Your task to perform on an android device: turn on the 24-hour format for clock Image 0: 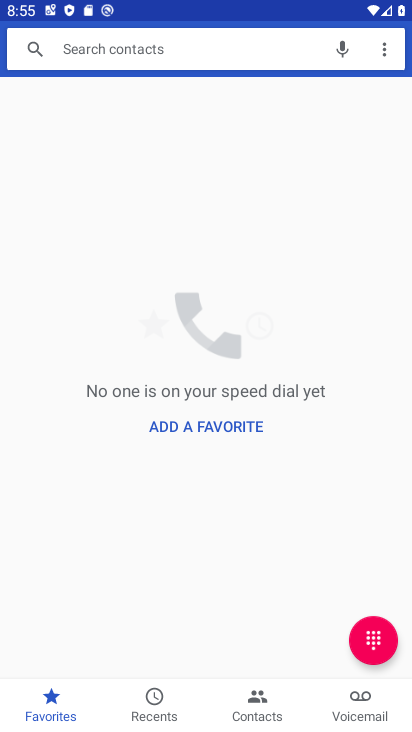
Step 0: press home button
Your task to perform on an android device: turn on the 24-hour format for clock Image 1: 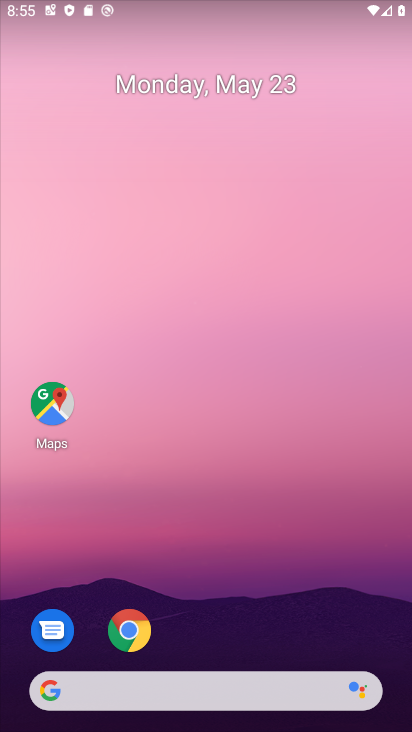
Step 1: drag from (196, 669) to (251, 159)
Your task to perform on an android device: turn on the 24-hour format for clock Image 2: 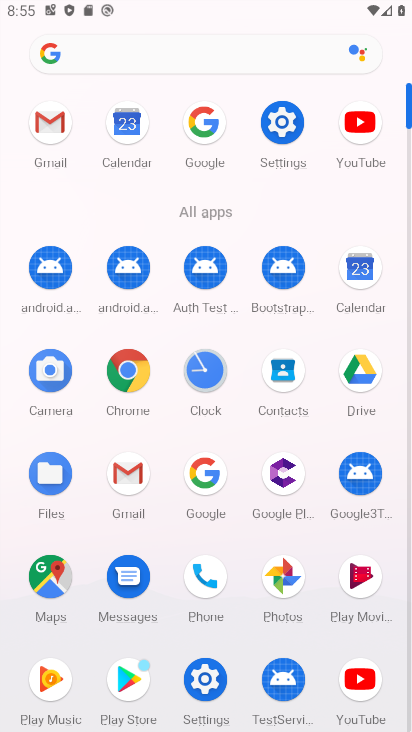
Step 2: click (210, 376)
Your task to perform on an android device: turn on the 24-hour format for clock Image 3: 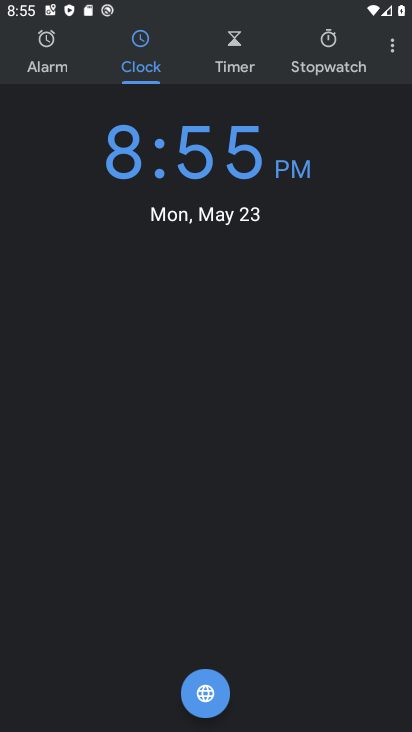
Step 3: click (392, 54)
Your task to perform on an android device: turn on the 24-hour format for clock Image 4: 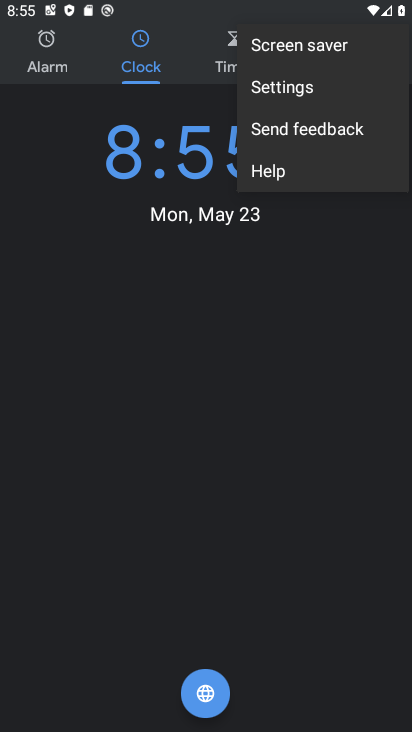
Step 4: click (301, 88)
Your task to perform on an android device: turn on the 24-hour format for clock Image 5: 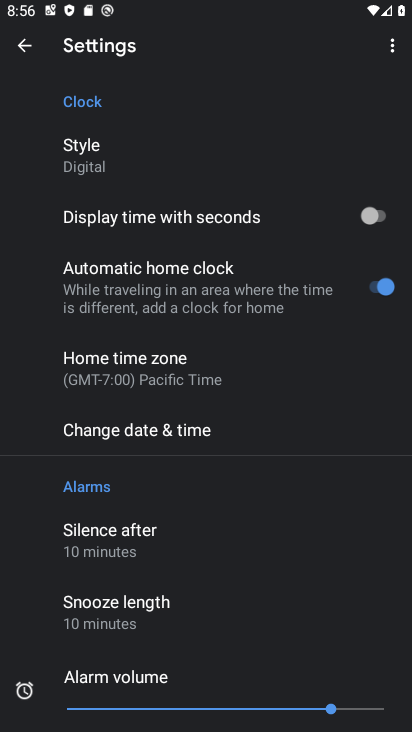
Step 5: drag from (142, 656) to (185, 202)
Your task to perform on an android device: turn on the 24-hour format for clock Image 6: 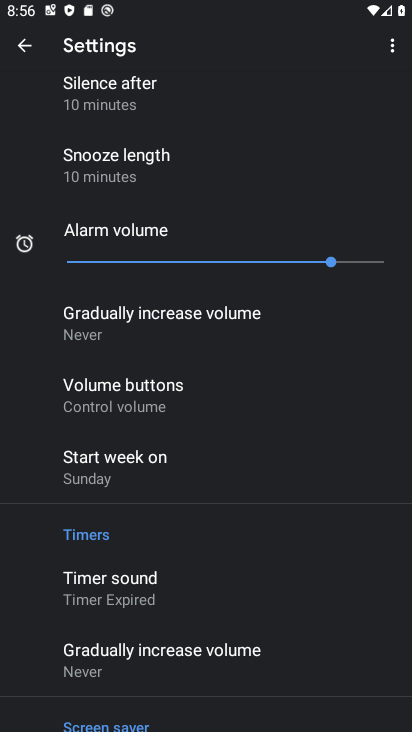
Step 6: drag from (161, 637) to (255, 72)
Your task to perform on an android device: turn on the 24-hour format for clock Image 7: 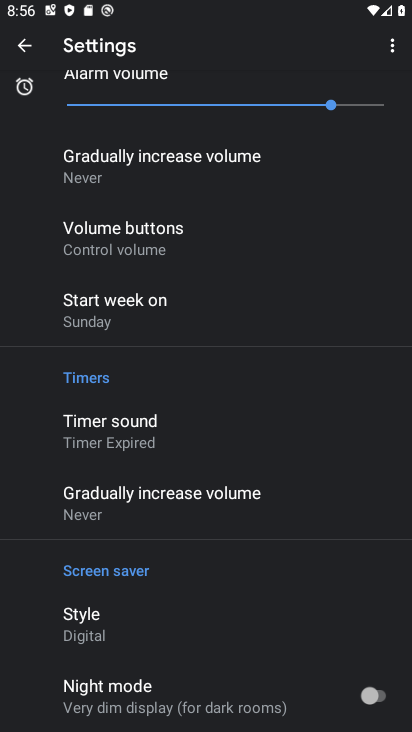
Step 7: drag from (176, 652) to (191, 234)
Your task to perform on an android device: turn on the 24-hour format for clock Image 8: 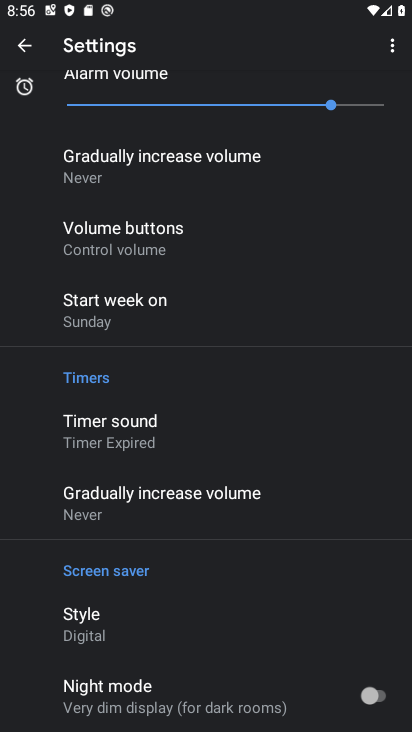
Step 8: drag from (180, 111) to (144, 496)
Your task to perform on an android device: turn on the 24-hour format for clock Image 9: 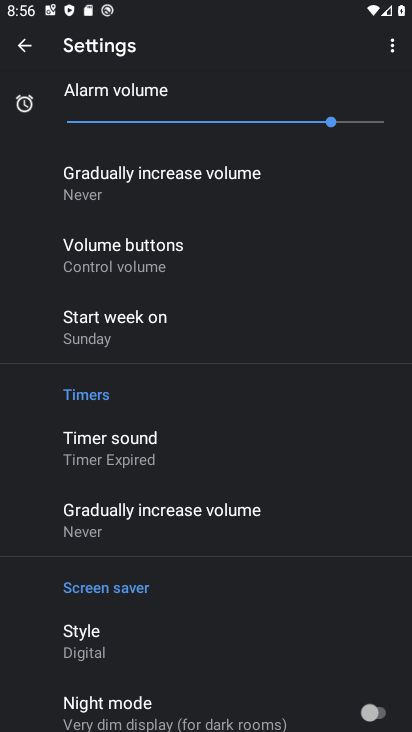
Step 9: drag from (190, 157) to (166, 600)
Your task to perform on an android device: turn on the 24-hour format for clock Image 10: 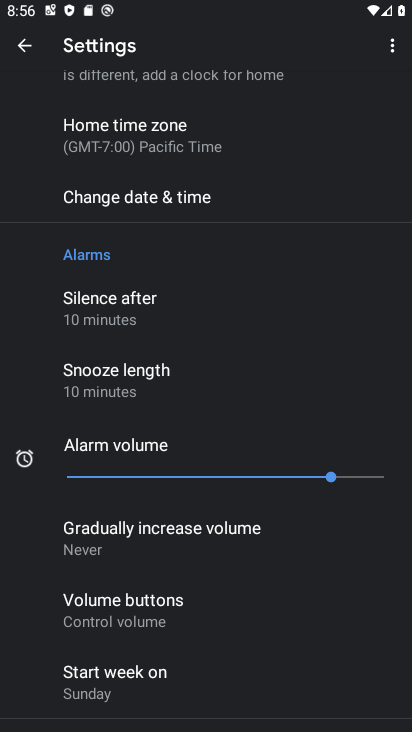
Step 10: click (120, 202)
Your task to perform on an android device: turn on the 24-hour format for clock Image 11: 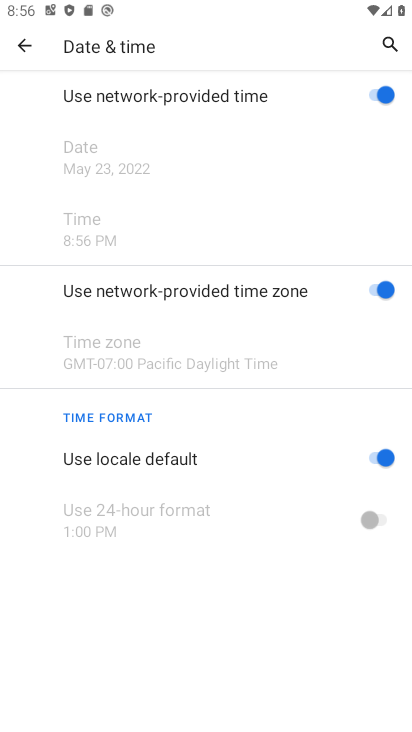
Step 11: click (379, 459)
Your task to perform on an android device: turn on the 24-hour format for clock Image 12: 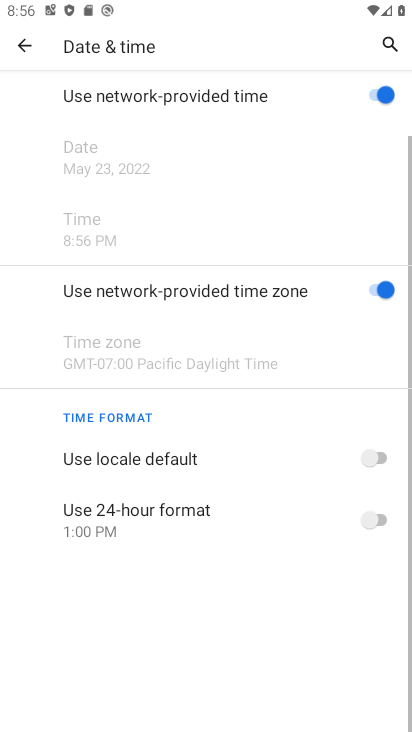
Step 12: click (379, 519)
Your task to perform on an android device: turn on the 24-hour format for clock Image 13: 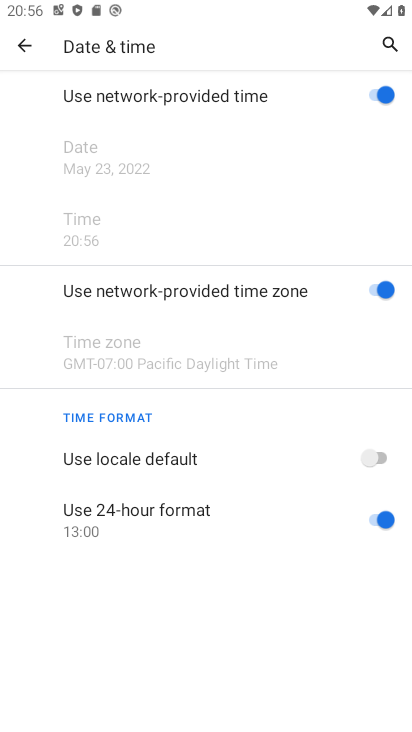
Step 13: task complete